Your task to perform on an android device: set an alarm Image 0: 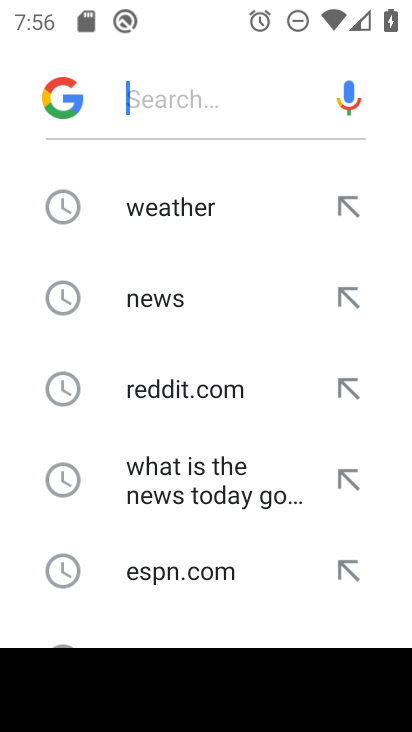
Step 0: press home button
Your task to perform on an android device: set an alarm Image 1: 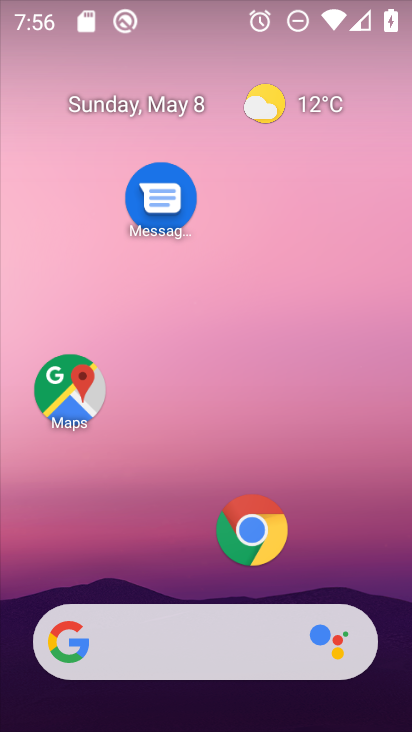
Step 1: drag from (190, 580) to (186, 26)
Your task to perform on an android device: set an alarm Image 2: 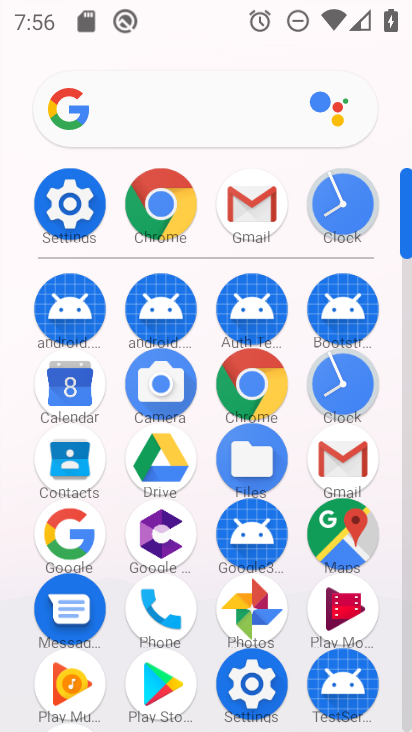
Step 2: click (341, 383)
Your task to perform on an android device: set an alarm Image 3: 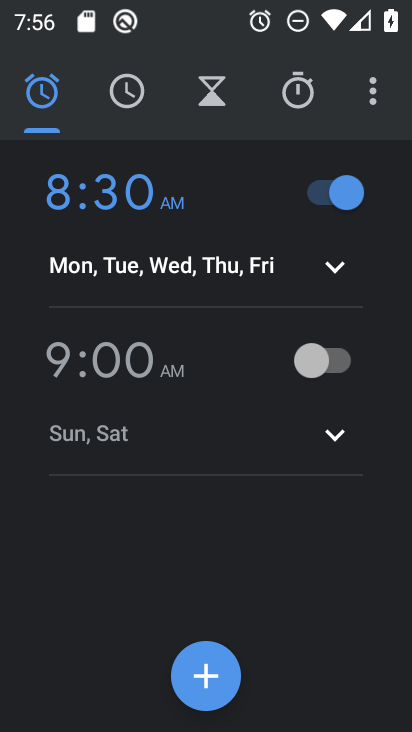
Step 3: click (137, 354)
Your task to perform on an android device: set an alarm Image 4: 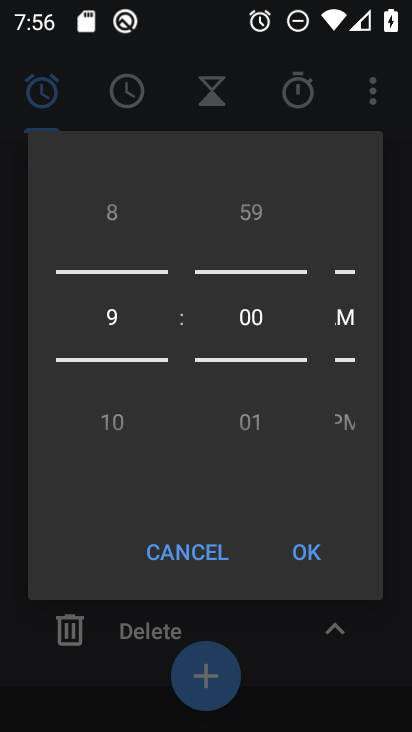
Step 4: click (304, 549)
Your task to perform on an android device: set an alarm Image 5: 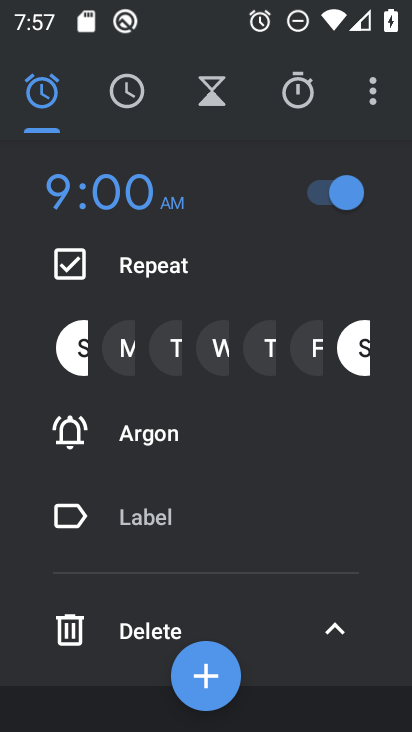
Step 5: task complete